Your task to perform on an android device: change alarm snooze length Image 0: 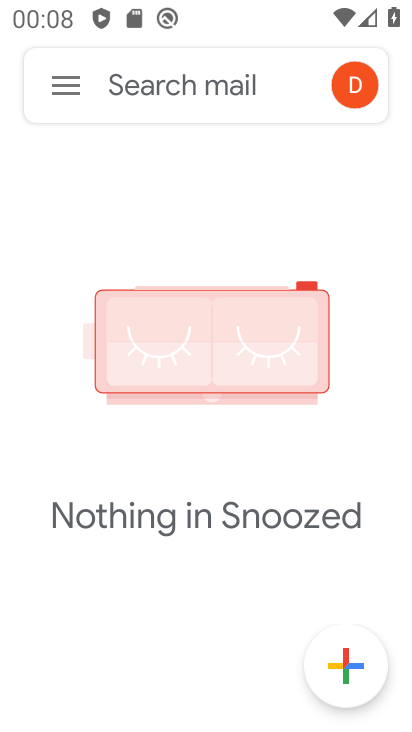
Step 0: press home button
Your task to perform on an android device: change alarm snooze length Image 1: 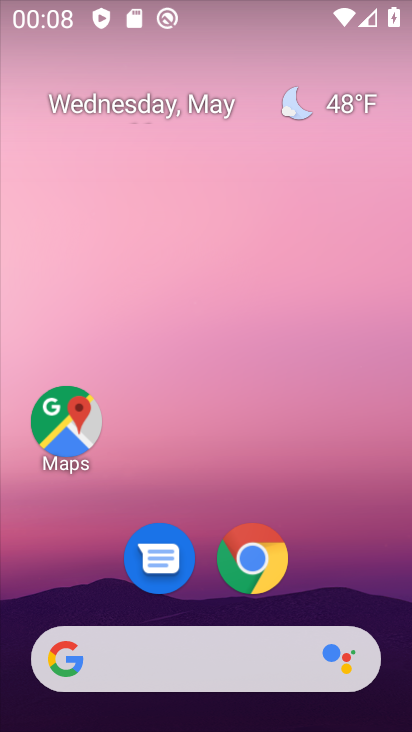
Step 1: drag from (378, 587) to (374, 217)
Your task to perform on an android device: change alarm snooze length Image 2: 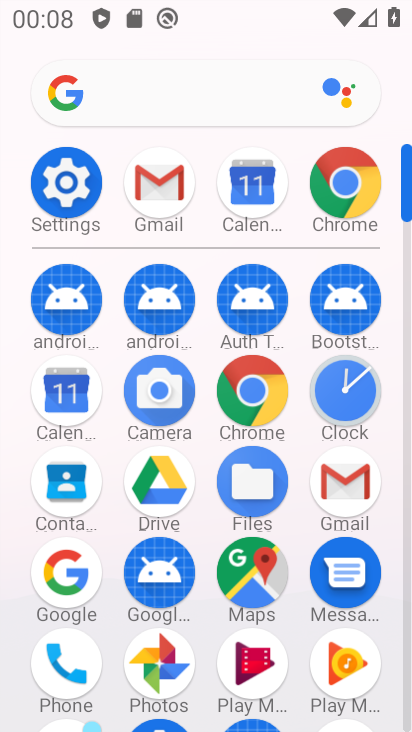
Step 2: click (350, 399)
Your task to perform on an android device: change alarm snooze length Image 3: 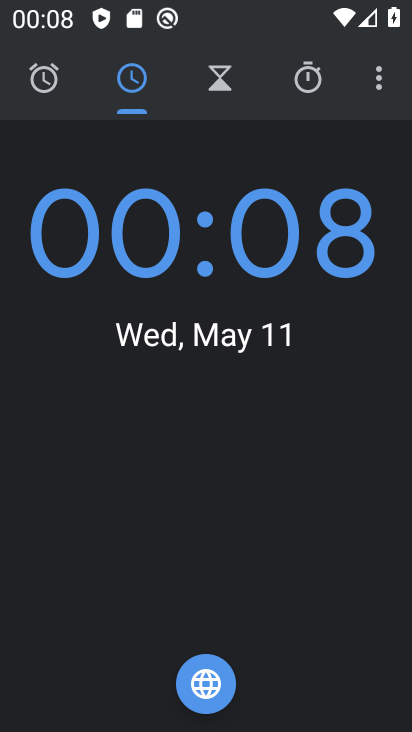
Step 3: click (373, 81)
Your task to perform on an android device: change alarm snooze length Image 4: 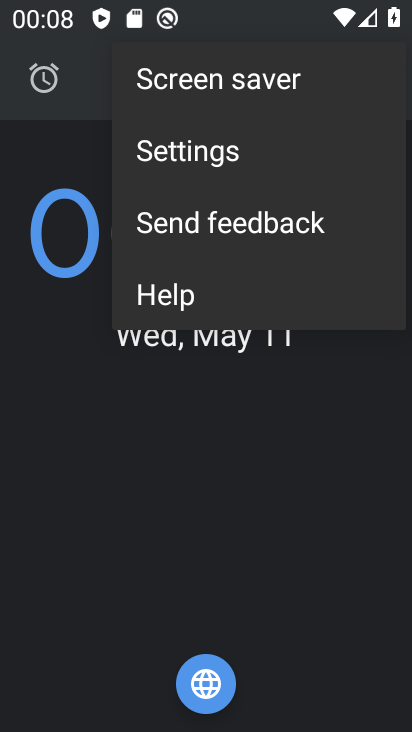
Step 4: click (263, 170)
Your task to perform on an android device: change alarm snooze length Image 5: 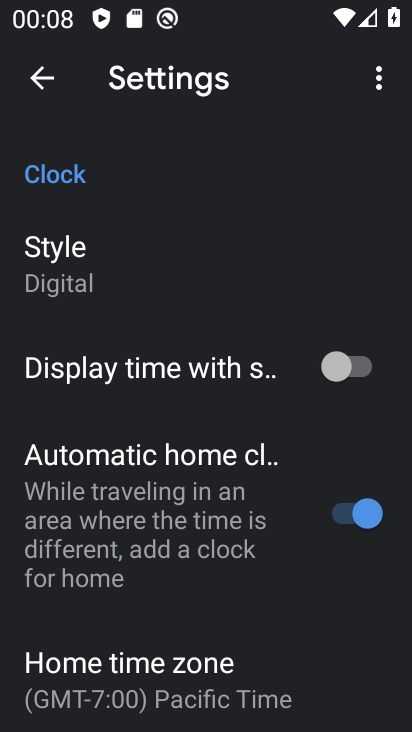
Step 5: drag from (202, 609) to (216, 276)
Your task to perform on an android device: change alarm snooze length Image 6: 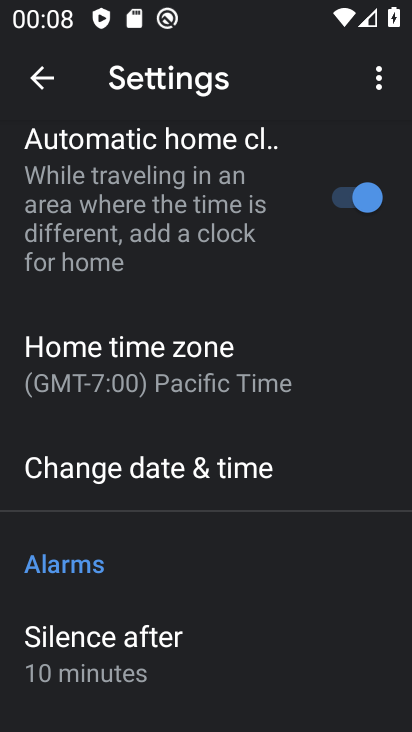
Step 6: drag from (224, 550) to (220, 283)
Your task to perform on an android device: change alarm snooze length Image 7: 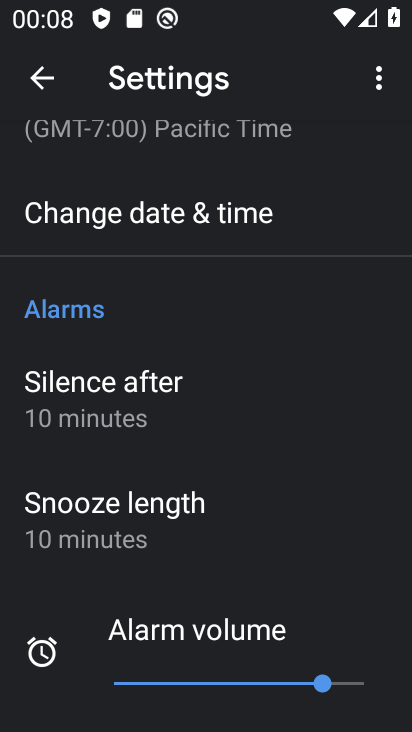
Step 7: click (224, 534)
Your task to perform on an android device: change alarm snooze length Image 8: 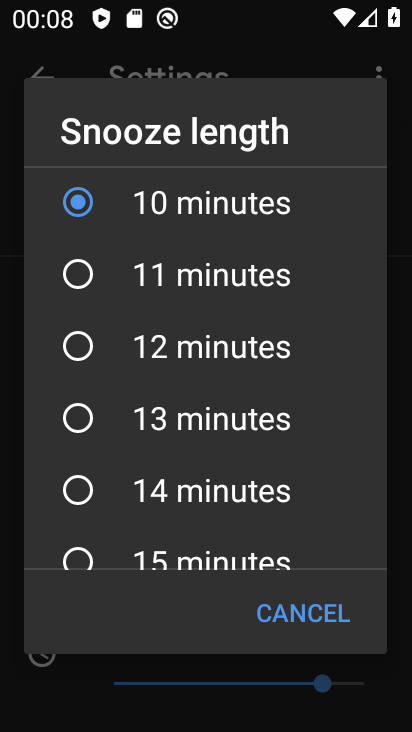
Step 8: click (79, 276)
Your task to perform on an android device: change alarm snooze length Image 9: 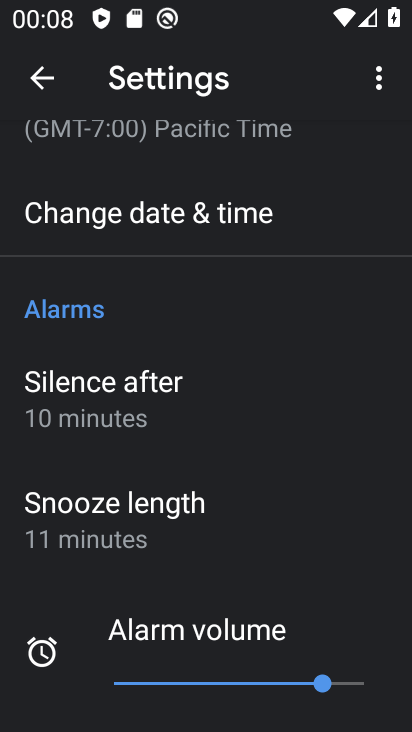
Step 9: task complete